Your task to perform on an android device: Show me recent news Image 0: 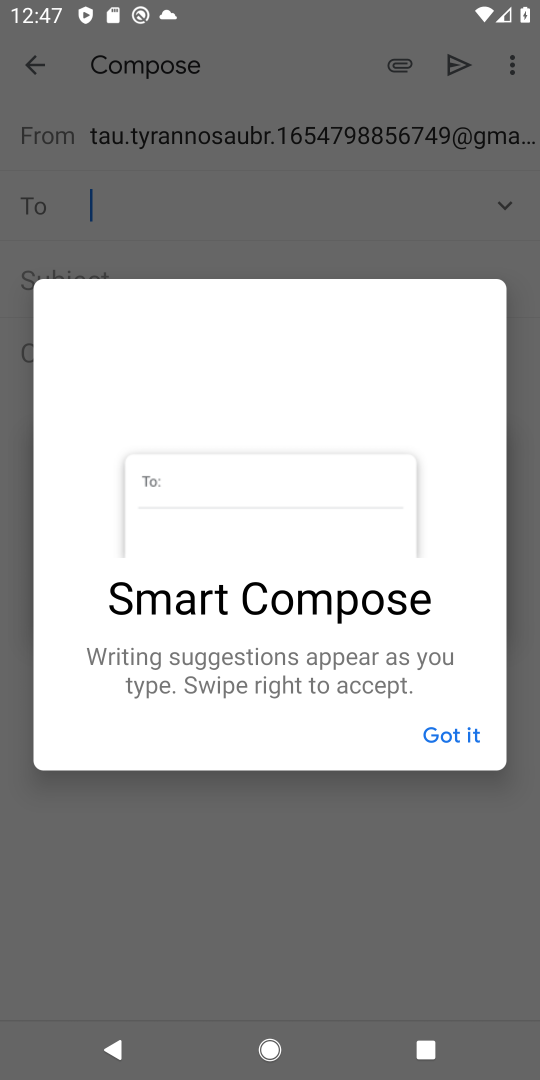
Step 0: press home button
Your task to perform on an android device: Show me recent news Image 1: 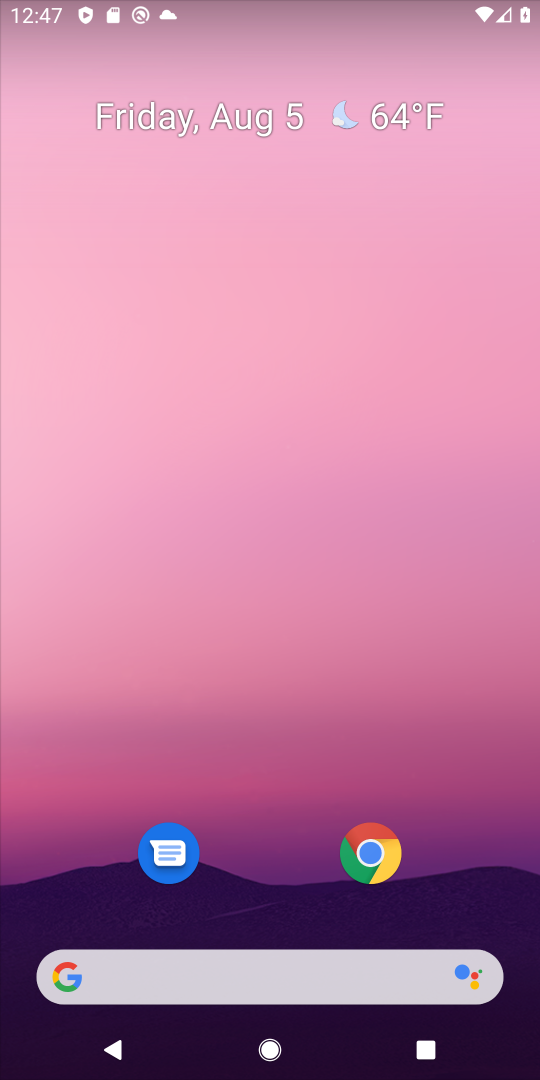
Step 1: press home button
Your task to perform on an android device: Show me recent news Image 2: 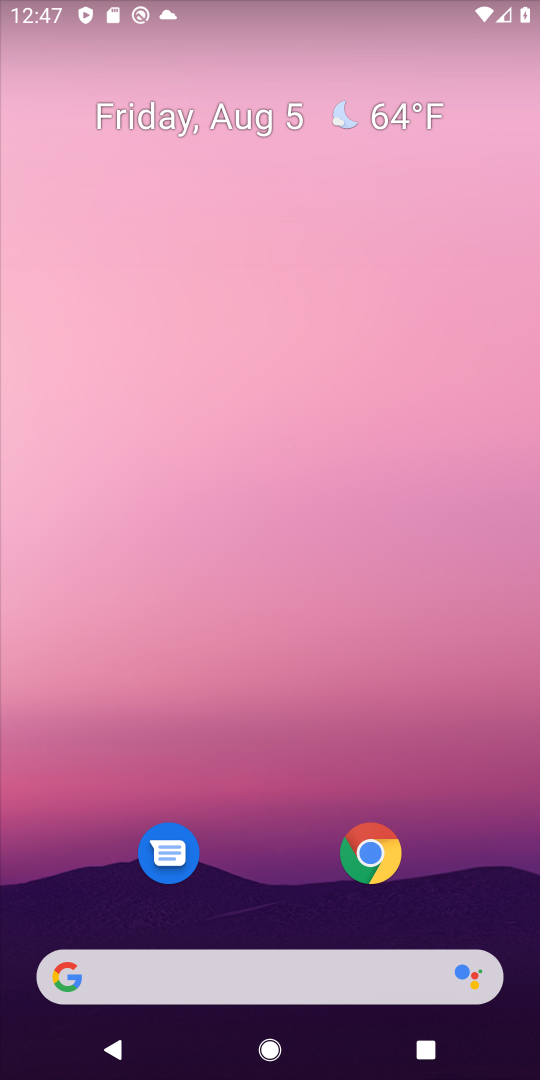
Step 2: drag from (231, 865) to (286, 301)
Your task to perform on an android device: Show me recent news Image 3: 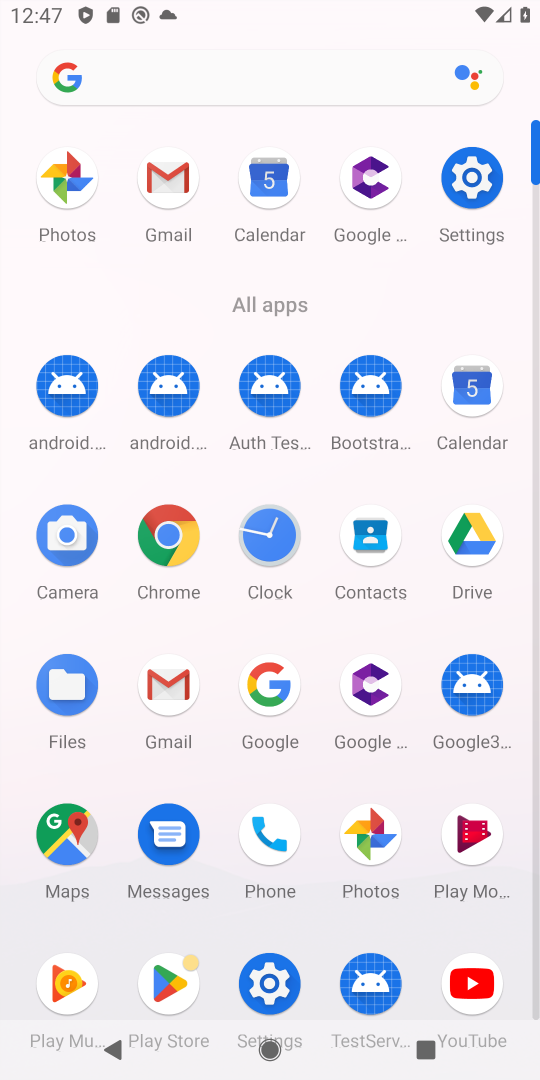
Step 3: click (261, 707)
Your task to perform on an android device: Show me recent news Image 4: 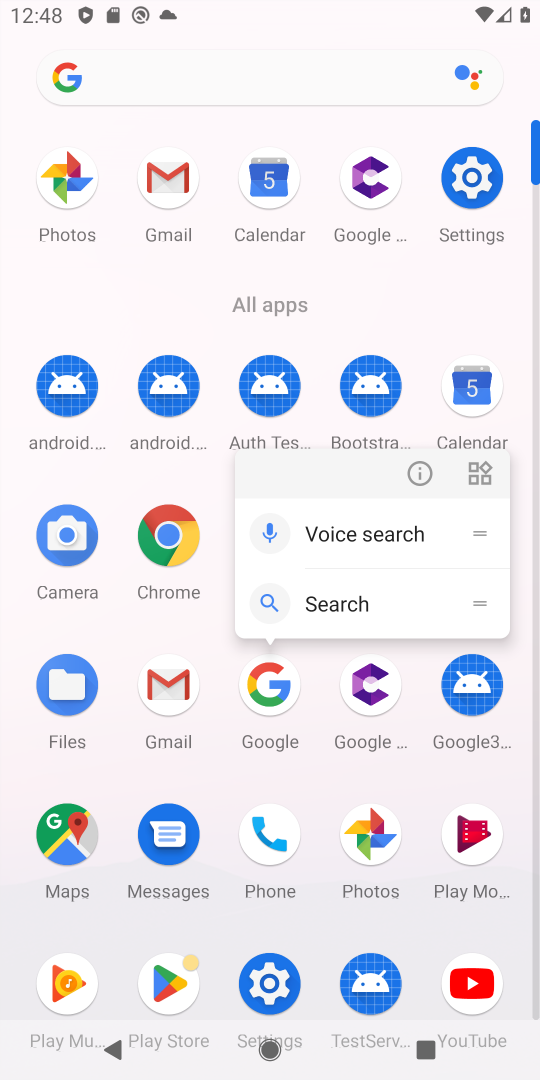
Step 4: click (277, 676)
Your task to perform on an android device: Show me recent news Image 5: 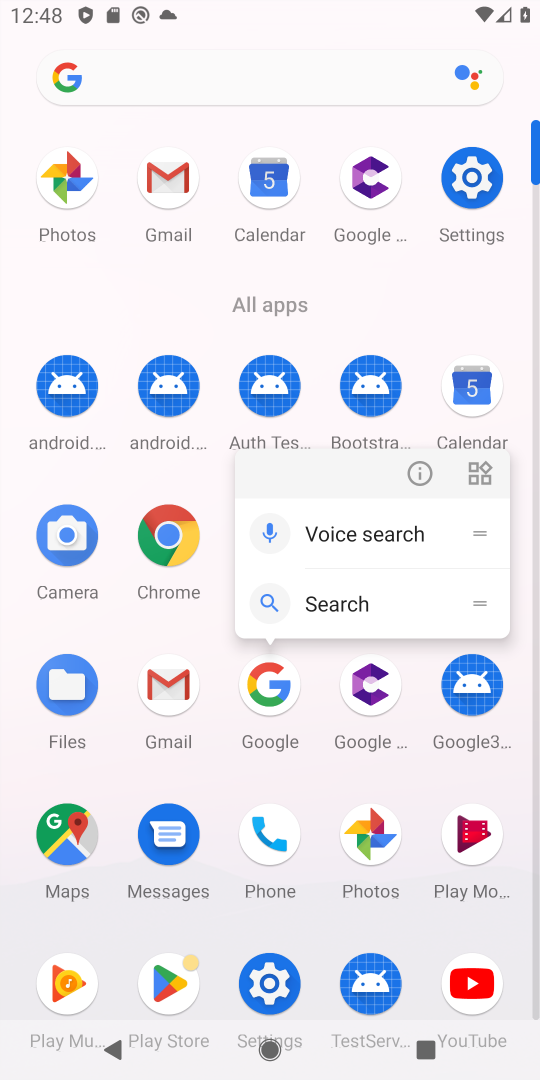
Step 5: click (274, 690)
Your task to perform on an android device: Show me recent news Image 6: 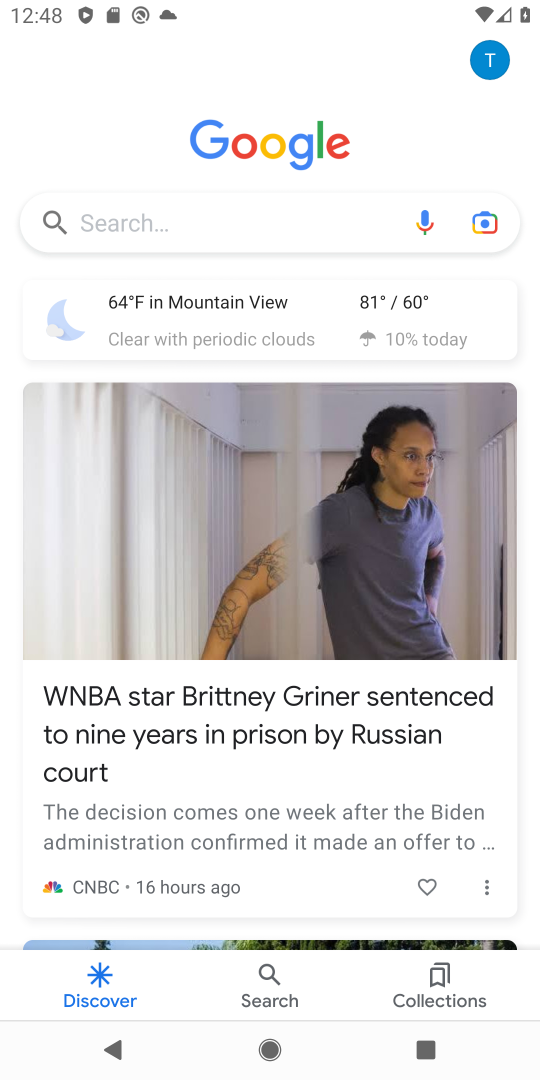
Step 6: click (171, 198)
Your task to perform on an android device: Show me recent news Image 7: 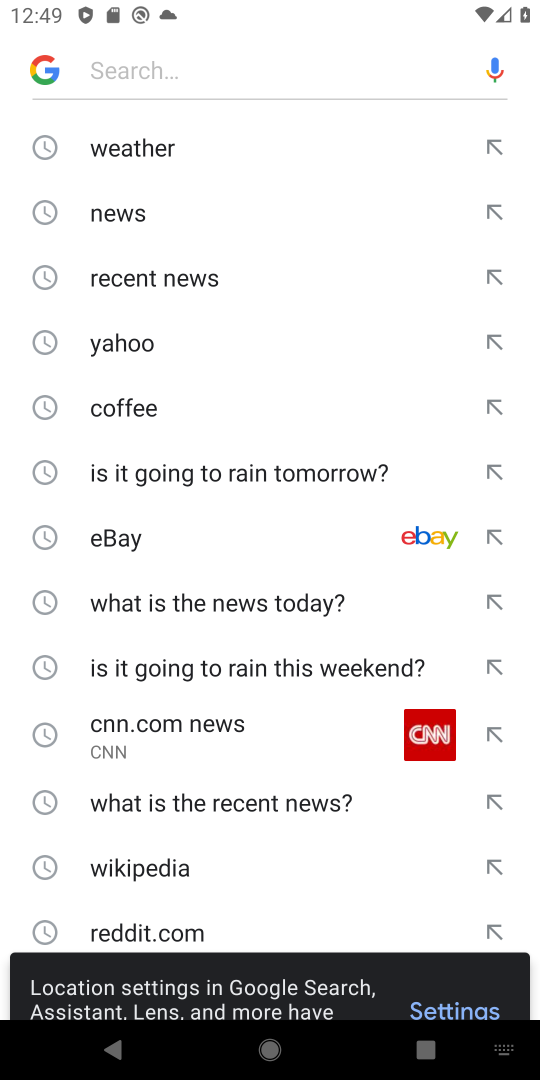
Step 7: click (149, 282)
Your task to perform on an android device: Show me recent news Image 8: 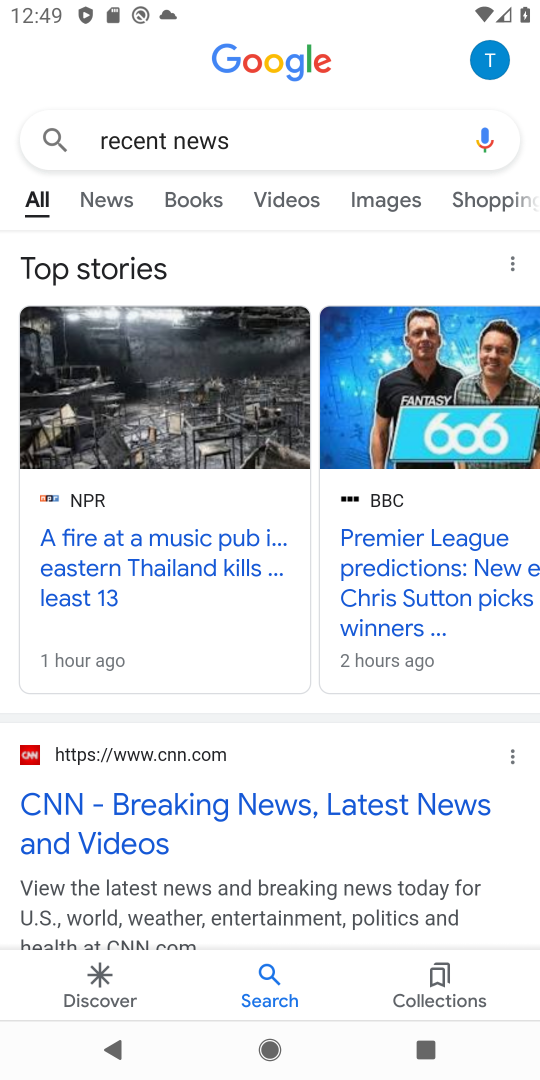
Step 8: task complete